Your task to perform on an android device: turn vacation reply on in the gmail app Image 0: 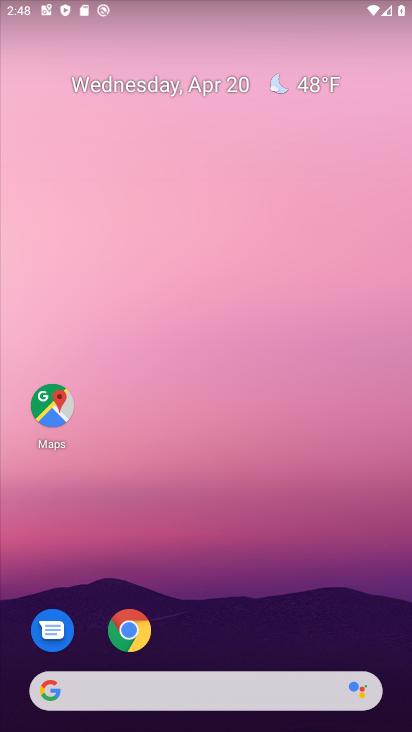
Step 0: drag from (273, 727) to (227, 173)
Your task to perform on an android device: turn vacation reply on in the gmail app Image 1: 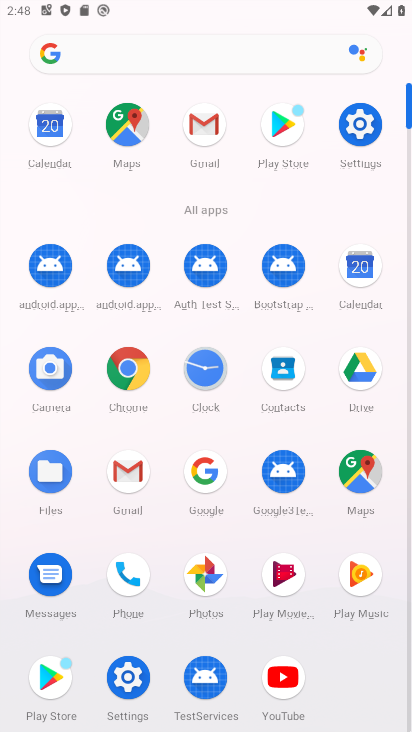
Step 1: click (216, 127)
Your task to perform on an android device: turn vacation reply on in the gmail app Image 2: 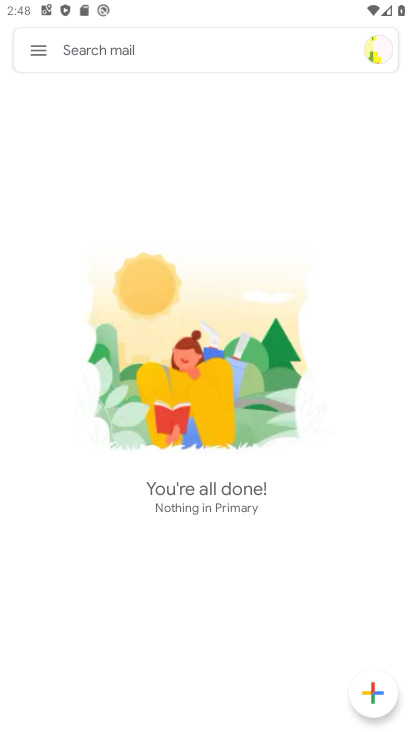
Step 2: click (47, 55)
Your task to perform on an android device: turn vacation reply on in the gmail app Image 3: 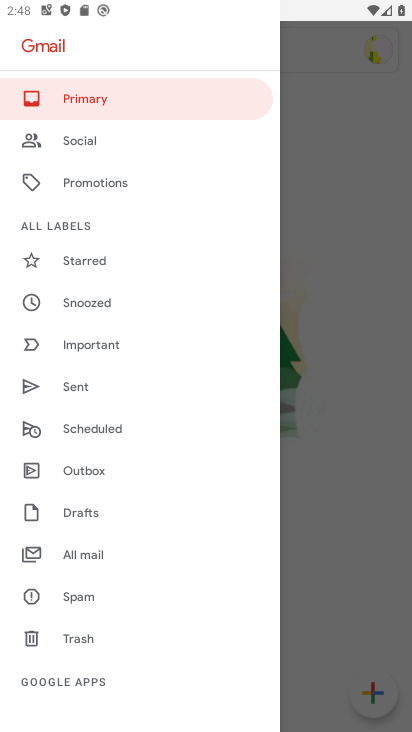
Step 3: drag from (144, 635) to (57, 7)
Your task to perform on an android device: turn vacation reply on in the gmail app Image 4: 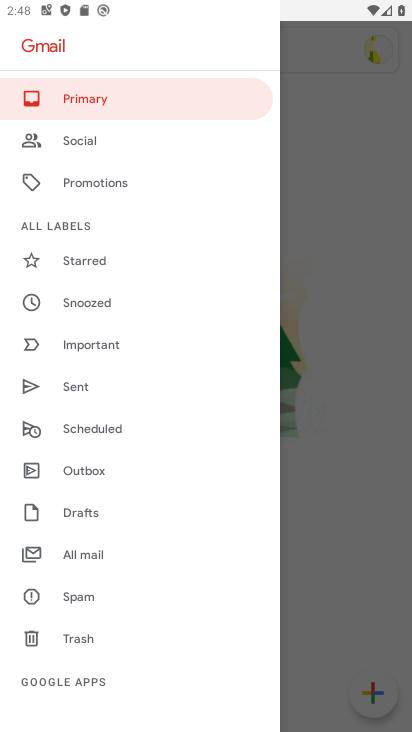
Step 4: drag from (126, 685) to (156, 25)
Your task to perform on an android device: turn vacation reply on in the gmail app Image 5: 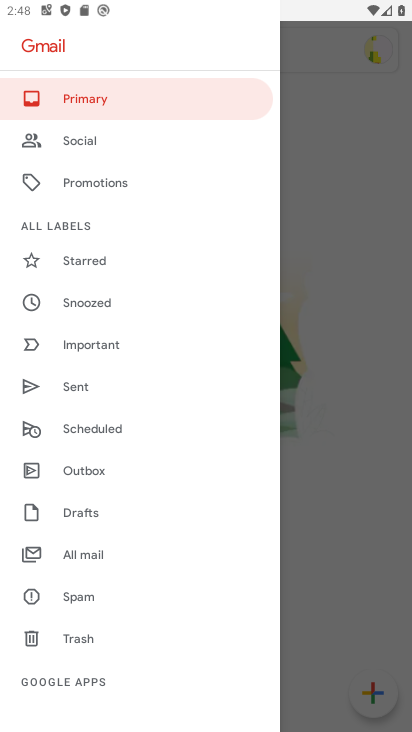
Step 5: drag from (122, 701) to (179, 10)
Your task to perform on an android device: turn vacation reply on in the gmail app Image 6: 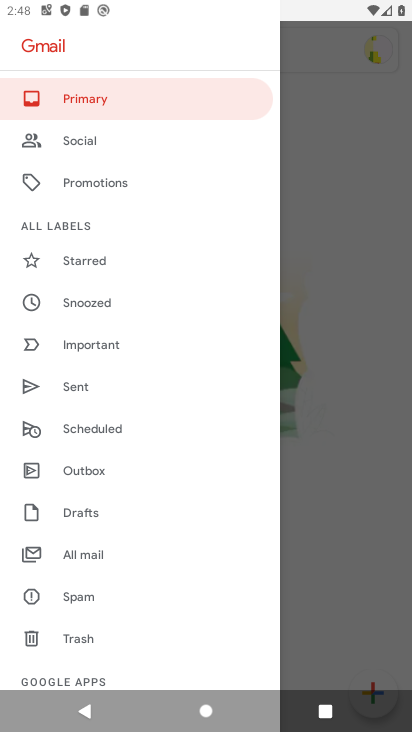
Step 6: drag from (117, 621) to (154, 19)
Your task to perform on an android device: turn vacation reply on in the gmail app Image 7: 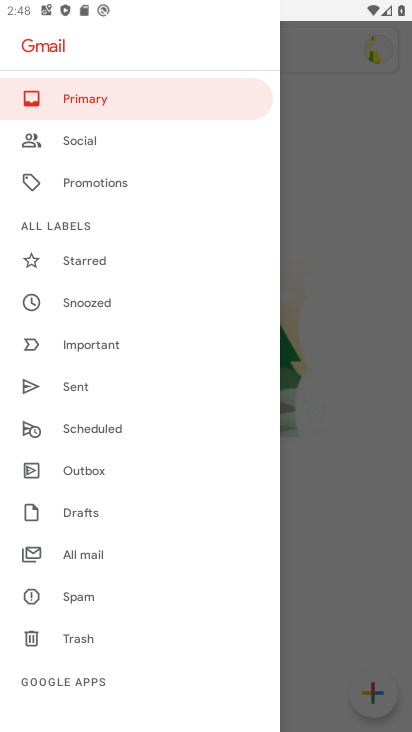
Step 7: drag from (127, 676) to (203, 17)
Your task to perform on an android device: turn vacation reply on in the gmail app Image 8: 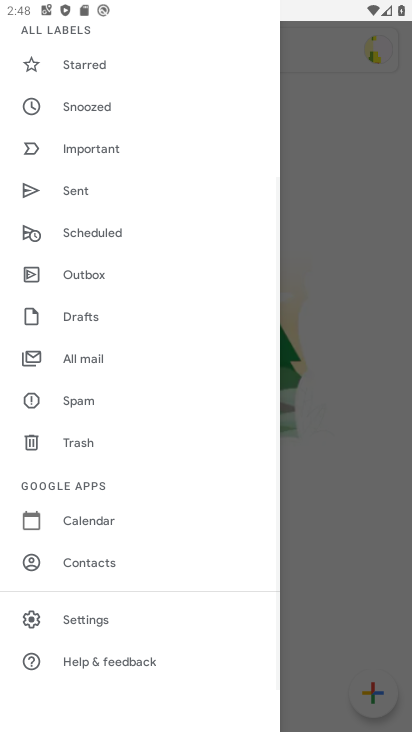
Step 8: click (83, 627)
Your task to perform on an android device: turn vacation reply on in the gmail app Image 9: 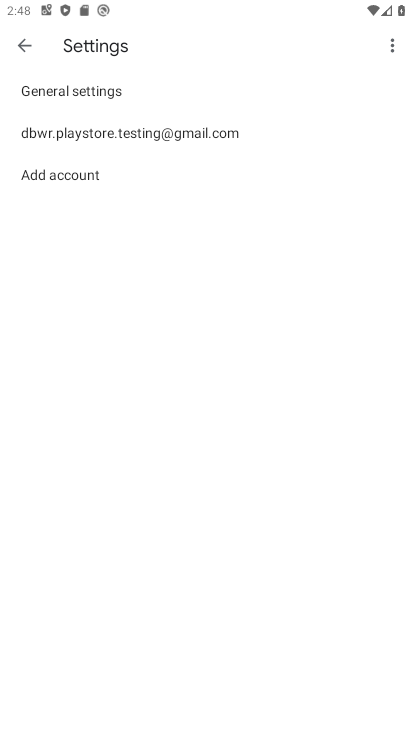
Step 9: click (100, 131)
Your task to perform on an android device: turn vacation reply on in the gmail app Image 10: 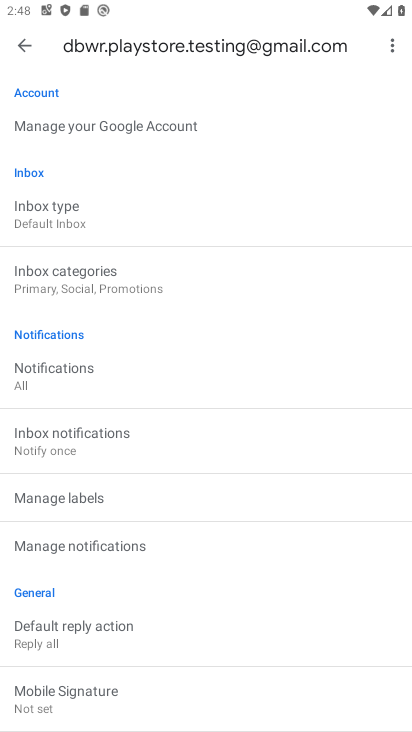
Step 10: drag from (318, 502) to (257, 135)
Your task to perform on an android device: turn vacation reply on in the gmail app Image 11: 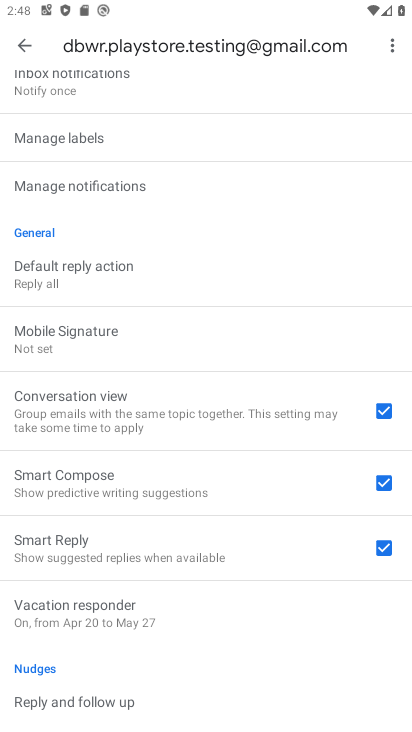
Step 11: click (185, 601)
Your task to perform on an android device: turn vacation reply on in the gmail app Image 12: 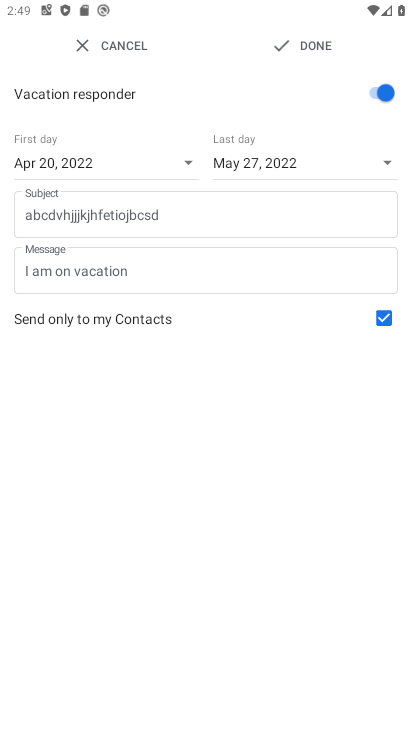
Step 12: click (310, 34)
Your task to perform on an android device: turn vacation reply on in the gmail app Image 13: 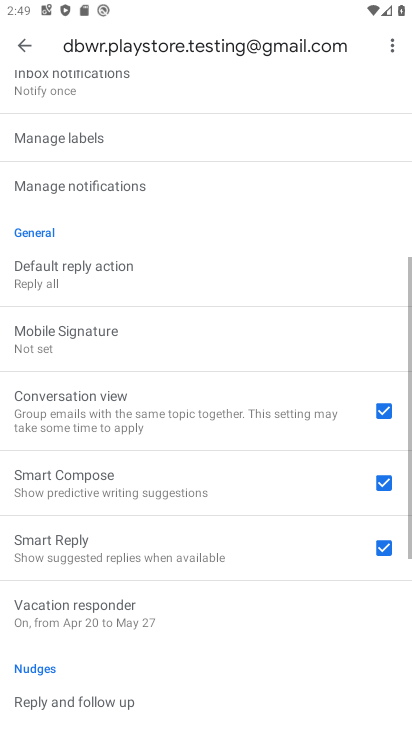
Step 13: task complete